Your task to perform on an android device: open the mobile data screen to see how much data has been used Image 0: 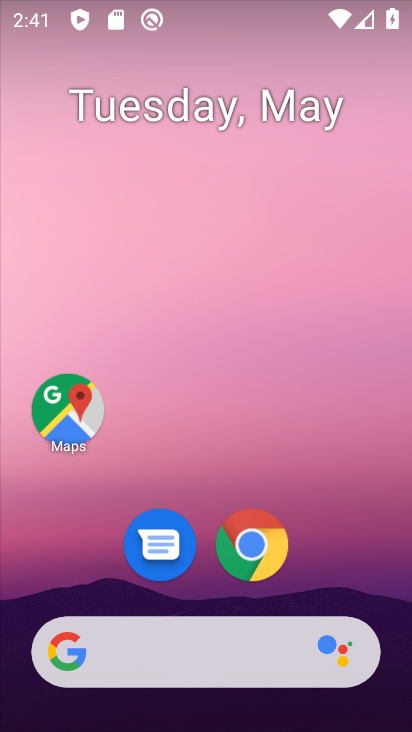
Step 0: press home button
Your task to perform on an android device: open the mobile data screen to see how much data has been used Image 1: 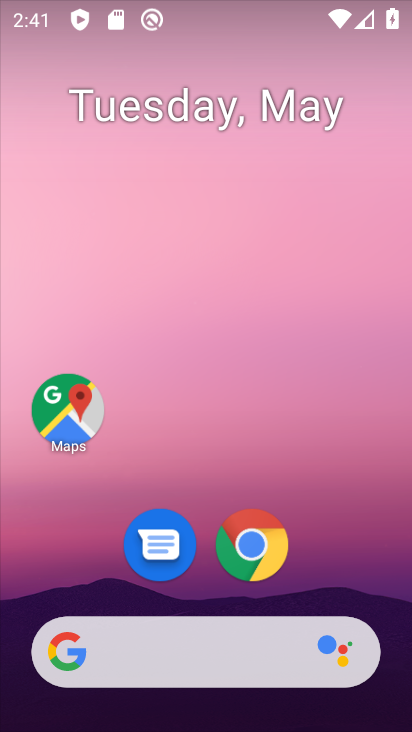
Step 1: drag from (249, 613) to (264, 35)
Your task to perform on an android device: open the mobile data screen to see how much data has been used Image 2: 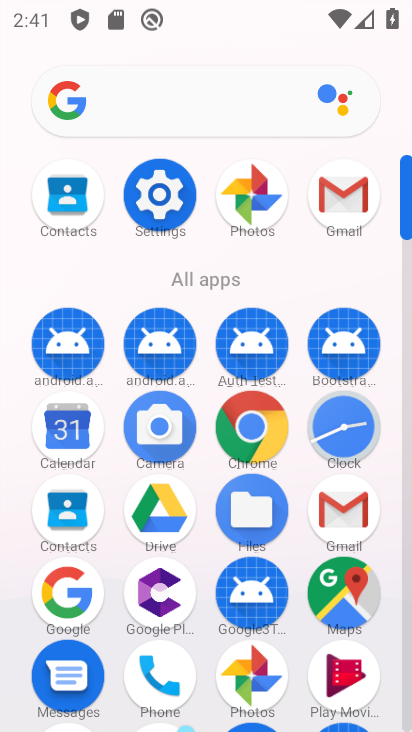
Step 2: click (172, 195)
Your task to perform on an android device: open the mobile data screen to see how much data has been used Image 3: 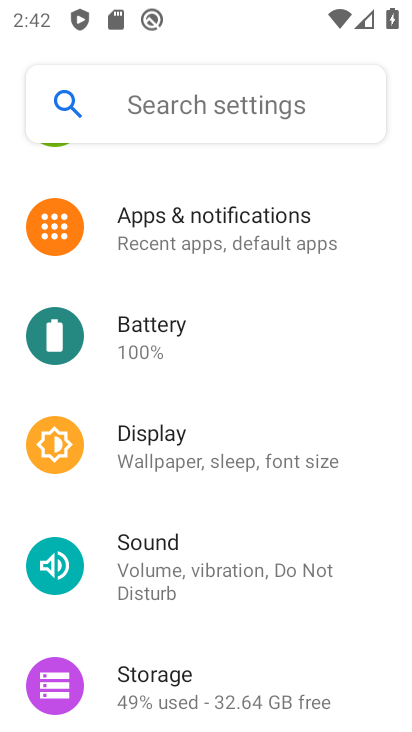
Step 3: drag from (228, 275) to (121, 690)
Your task to perform on an android device: open the mobile data screen to see how much data has been used Image 4: 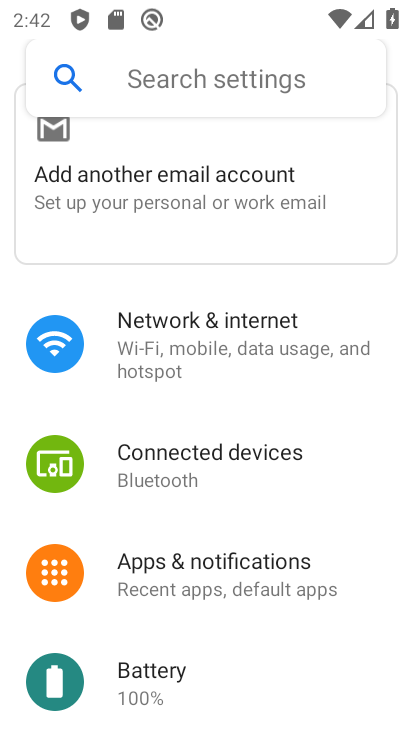
Step 4: click (172, 357)
Your task to perform on an android device: open the mobile data screen to see how much data has been used Image 5: 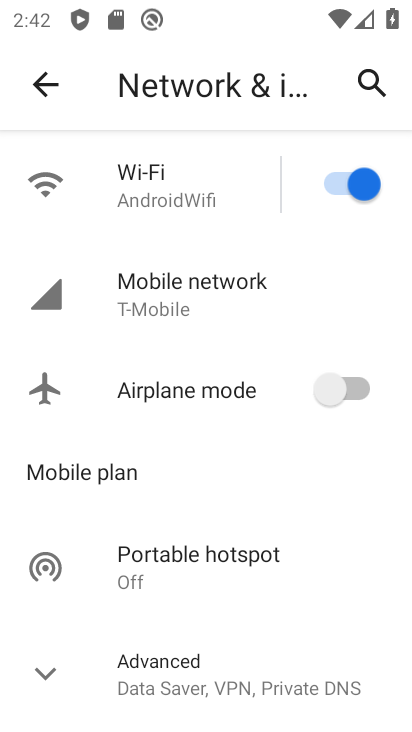
Step 5: click (199, 281)
Your task to perform on an android device: open the mobile data screen to see how much data has been used Image 6: 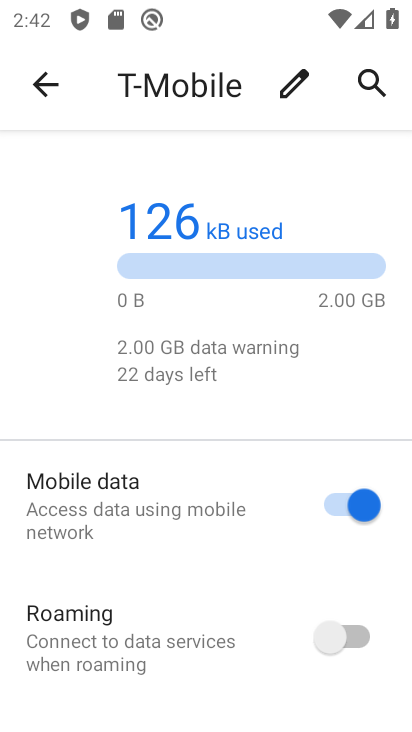
Step 6: task complete